Your task to perform on an android device: toggle improve location accuracy Image 0: 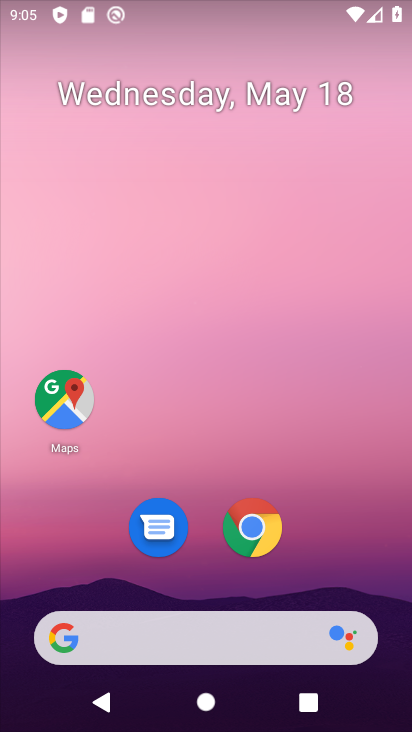
Step 0: drag from (354, 559) to (289, 218)
Your task to perform on an android device: toggle improve location accuracy Image 1: 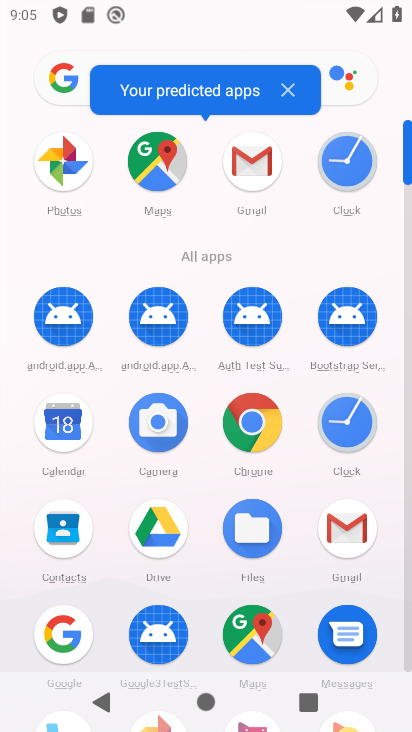
Step 1: drag from (207, 582) to (194, 318)
Your task to perform on an android device: toggle improve location accuracy Image 2: 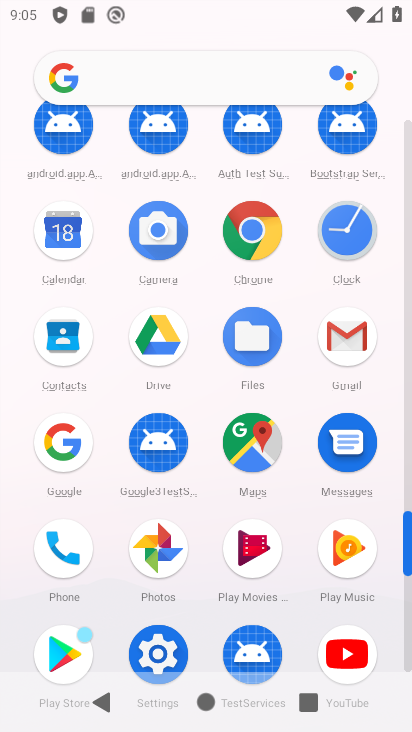
Step 2: click (164, 645)
Your task to perform on an android device: toggle improve location accuracy Image 3: 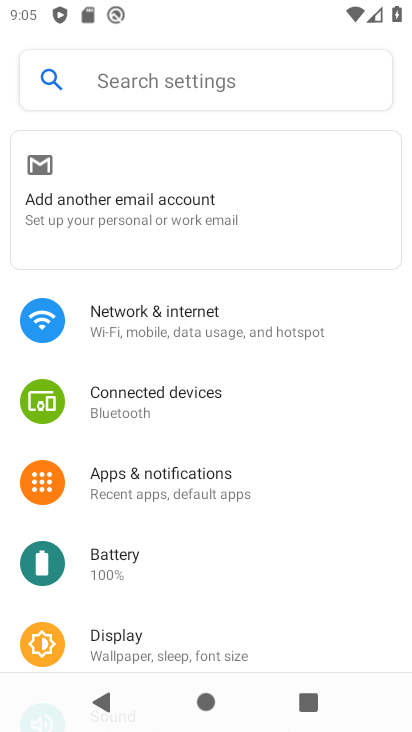
Step 3: drag from (245, 631) to (296, 166)
Your task to perform on an android device: toggle improve location accuracy Image 4: 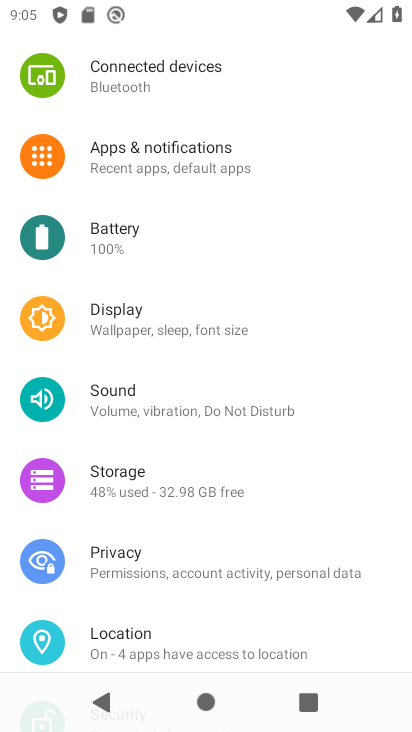
Step 4: drag from (205, 569) to (196, 354)
Your task to perform on an android device: toggle improve location accuracy Image 5: 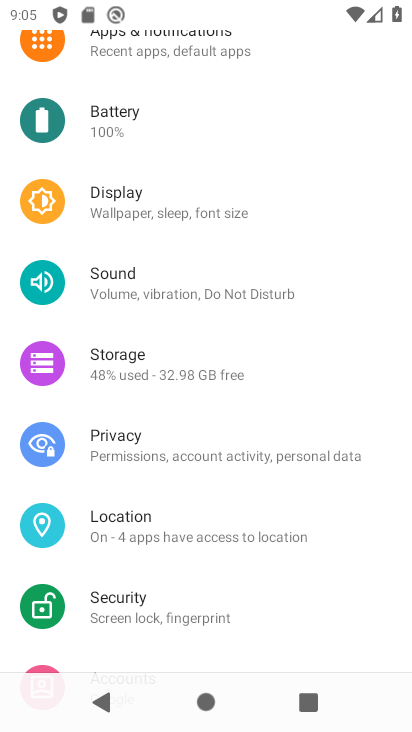
Step 5: click (165, 523)
Your task to perform on an android device: toggle improve location accuracy Image 6: 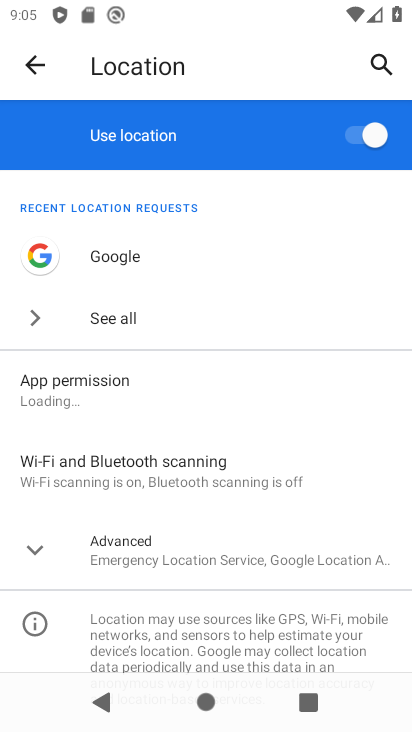
Step 6: click (167, 552)
Your task to perform on an android device: toggle improve location accuracy Image 7: 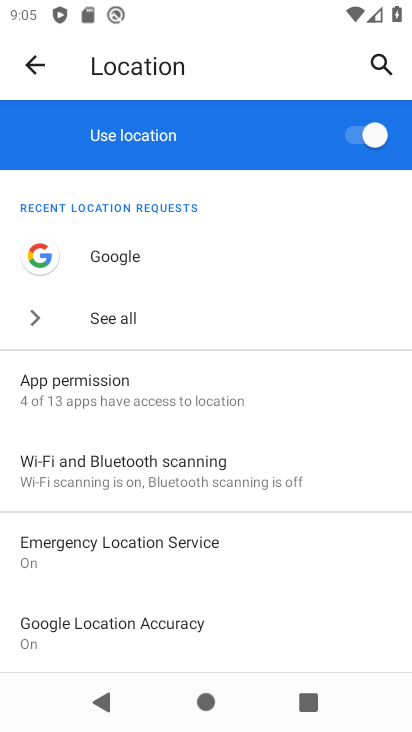
Step 7: click (180, 627)
Your task to perform on an android device: toggle improve location accuracy Image 8: 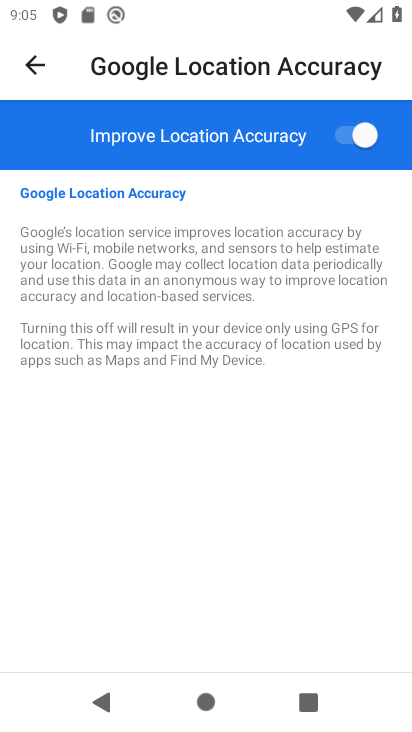
Step 8: click (341, 134)
Your task to perform on an android device: toggle improve location accuracy Image 9: 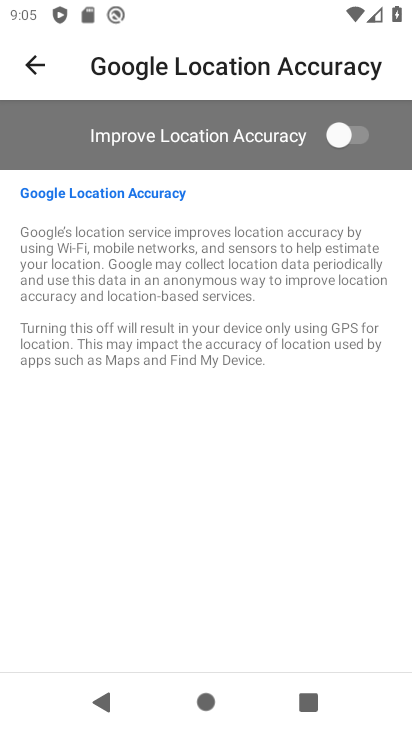
Step 9: task complete